Your task to perform on an android device: open a bookmark in the chrome app Image 0: 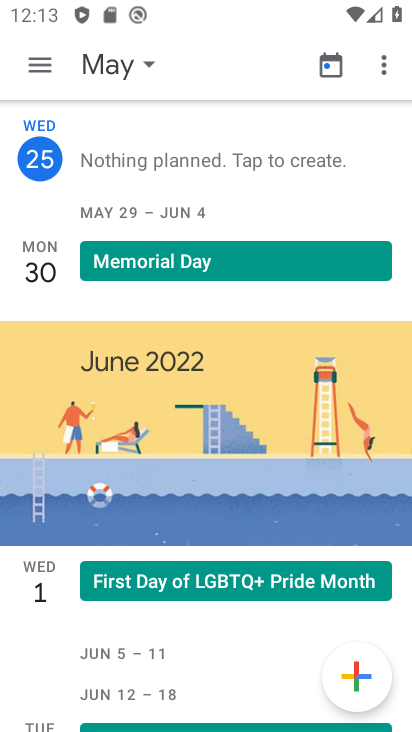
Step 0: press back button
Your task to perform on an android device: open a bookmark in the chrome app Image 1: 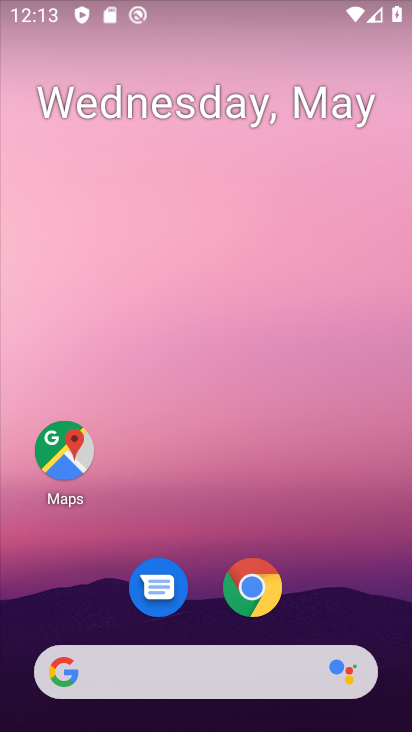
Step 1: drag from (28, 636) to (144, 203)
Your task to perform on an android device: open a bookmark in the chrome app Image 2: 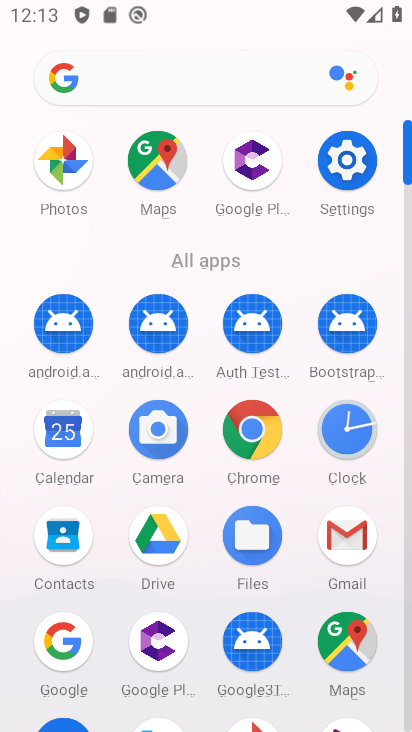
Step 2: click (241, 424)
Your task to perform on an android device: open a bookmark in the chrome app Image 3: 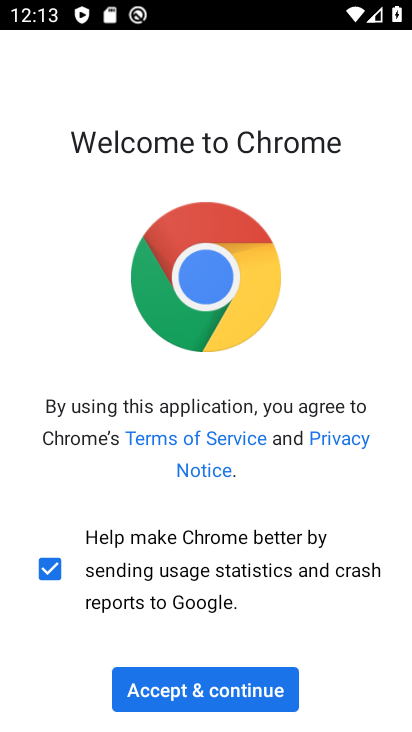
Step 3: click (228, 694)
Your task to perform on an android device: open a bookmark in the chrome app Image 4: 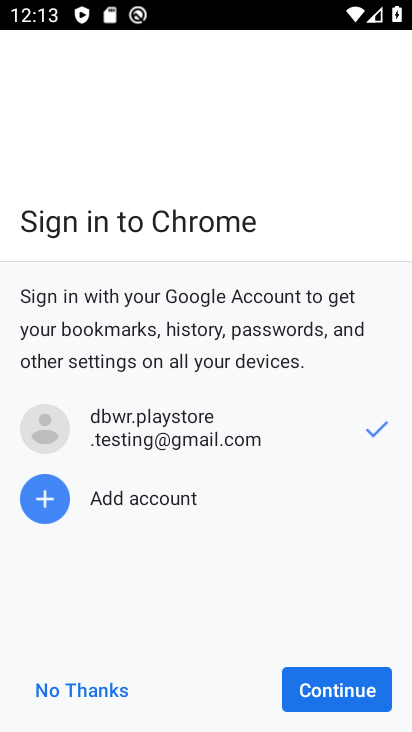
Step 4: click (309, 687)
Your task to perform on an android device: open a bookmark in the chrome app Image 5: 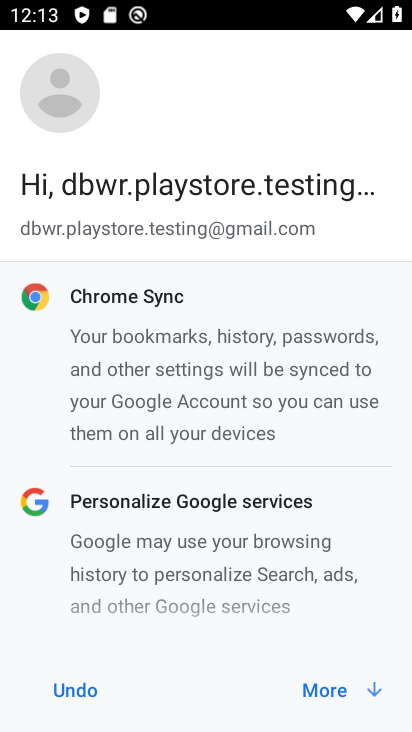
Step 5: click (324, 697)
Your task to perform on an android device: open a bookmark in the chrome app Image 6: 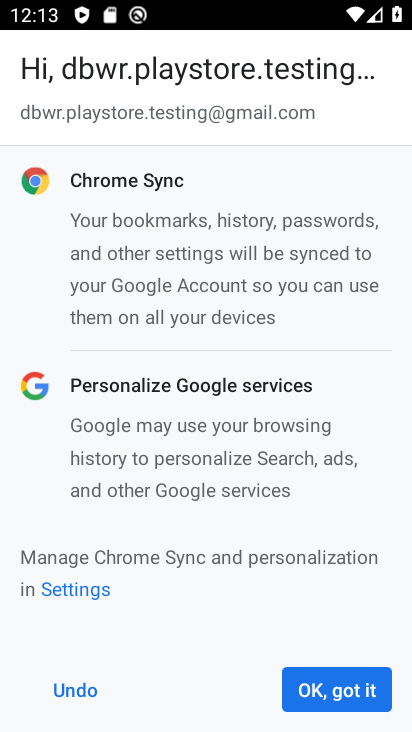
Step 6: click (324, 697)
Your task to perform on an android device: open a bookmark in the chrome app Image 7: 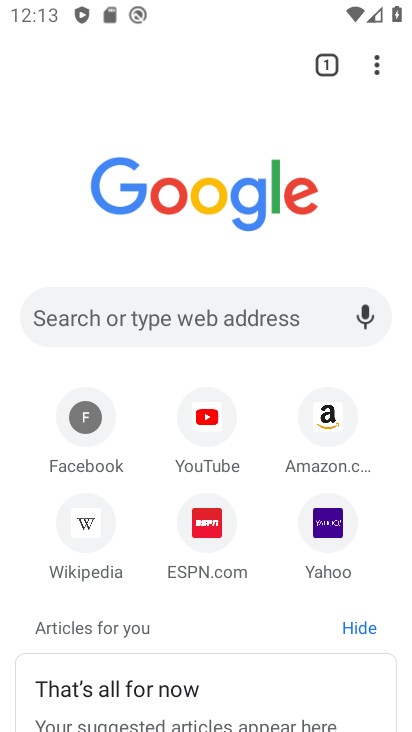
Step 7: task complete